Your task to perform on an android device: toggle data saver in the chrome app Image 0: 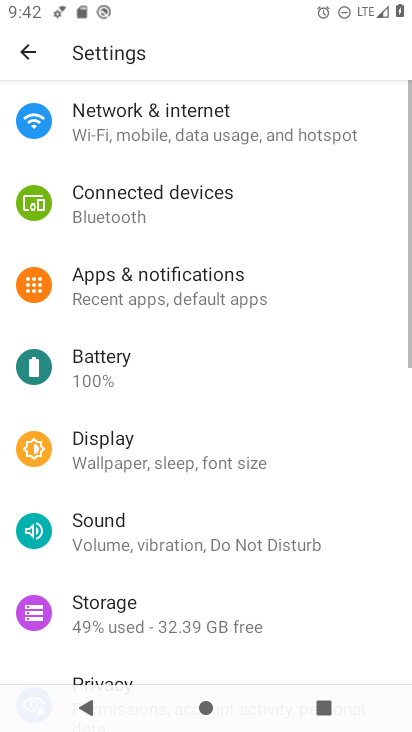
Step 0: press home button
Your task to perform on an android device: toggle data saver in the chrome app Image 1: 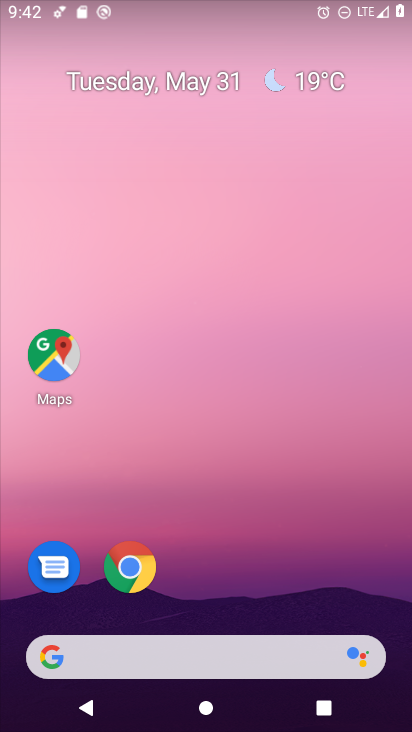
Step 1: click (143, 566)
Your task to perform on an android device: toggle data saver in the chrome app Image 2: 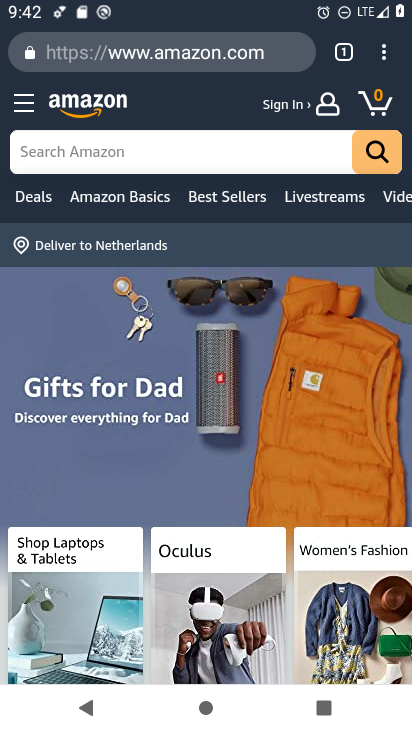
Step 2: click (377, 53)
Your task to perform on an android device: toggle data saver in the chrome app Image 3: 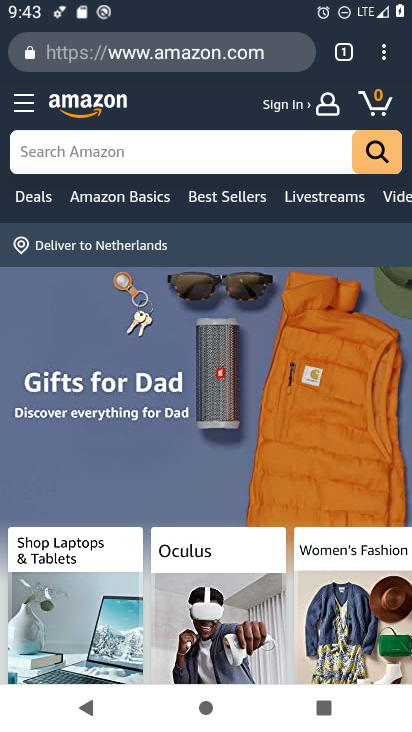
Step 3: click (381, 49)
Your task to perform on an android device: toggle data saver in the chrome app Image 4: 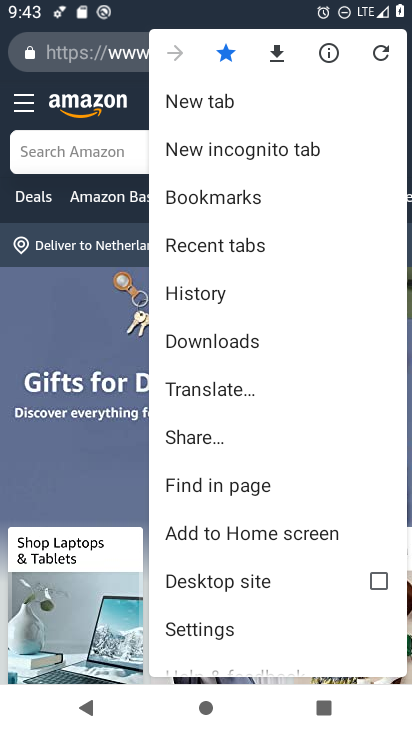
Step 4: click (187, 631)
Your task to perform on an android device: toggle data saver in the chrome app Image 5: 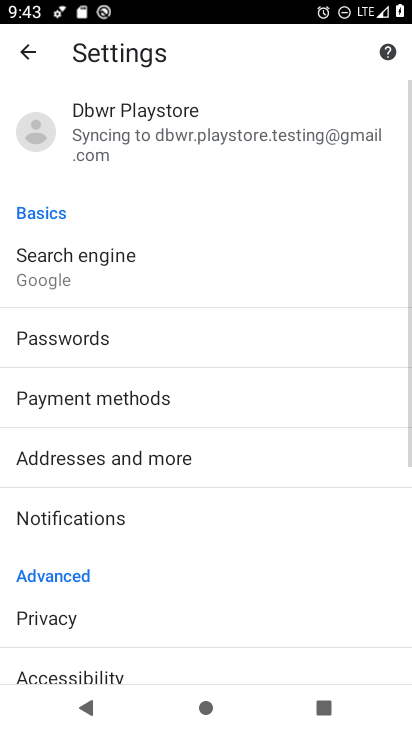
Step 5: drag from (84, 619) to (59, 272)
Your task to perform on an android device: toggle data saver in the chrome app Image 6: 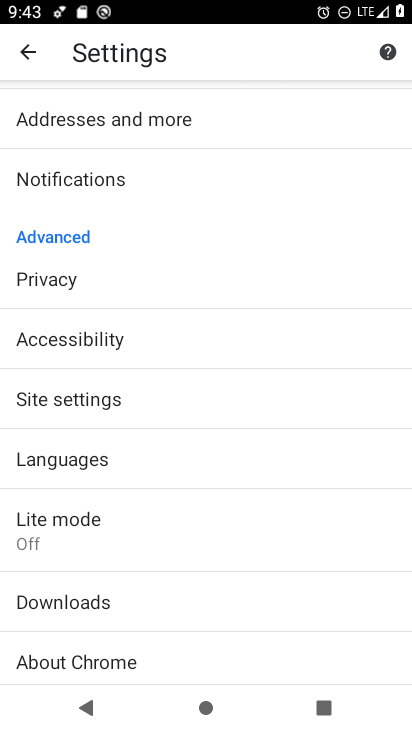
Step 6: click (67, 539)
Your task to perform on an android device: toggle data saver in the chrome app Image 7: 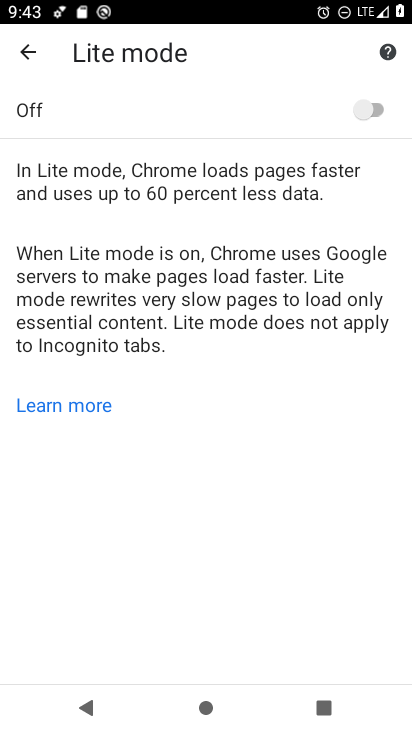
Step 7: click (367, 111)
Your task to perform on an android device: toggle data saver in the chrome app Image 8: 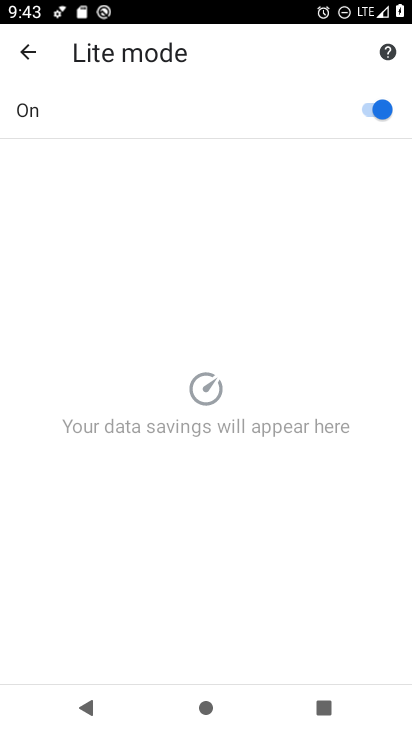
Step 8: task complete